Your task to perform on an android device: Go to battery settings Image 0: 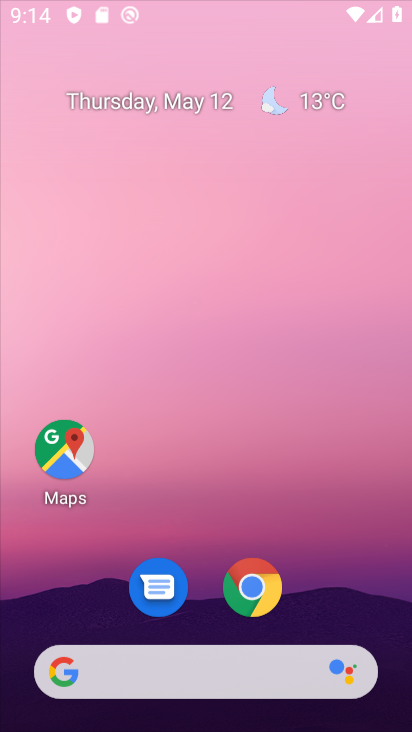
Step 0: drag from (357, 586) to (364, 14)
Your task to perform on an android device: Go to battery settings Image 1: 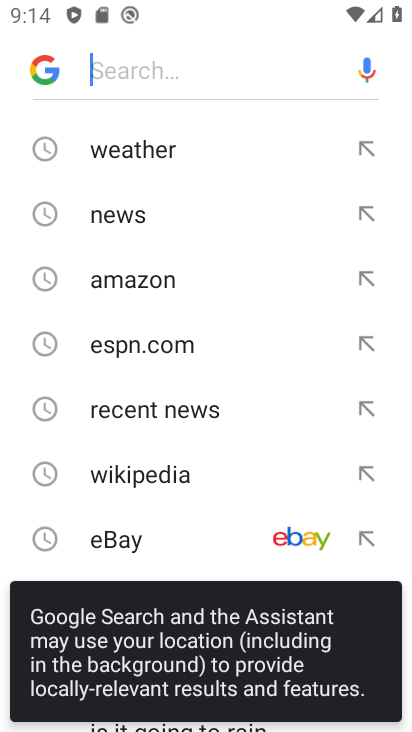
Step 1: press back button
Your task to perform on an android device: Go to battery settings Image 2: 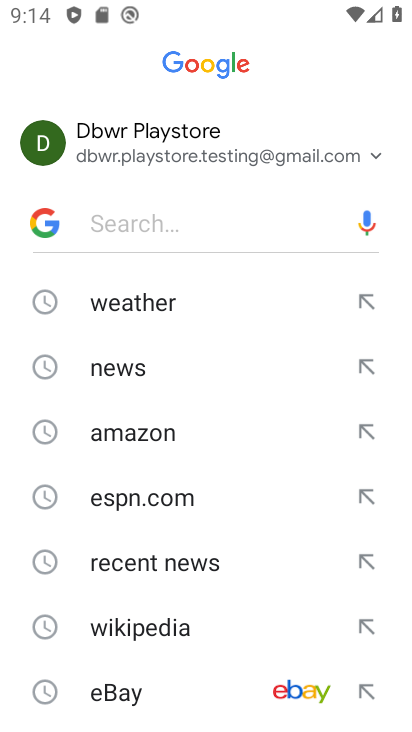
Step 2: press home button
Your task to perform on an android device: Go to battery settings Image 3: 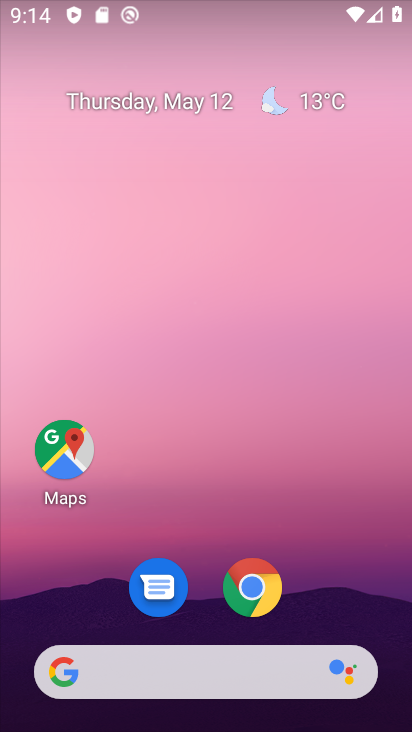
Step 3: drag from (327, 595) to (363, 30)
Your task to perform on an android device: Go to battery settings Image 4: 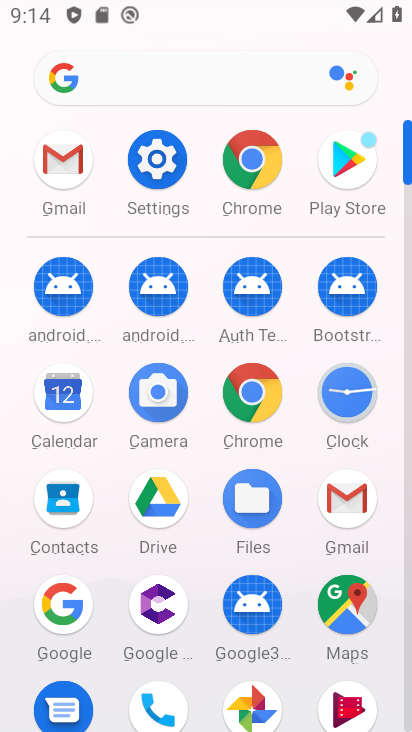
Step 4: click (170, 155)
Your task to perform on an android device: Go to battery settings Image 5: 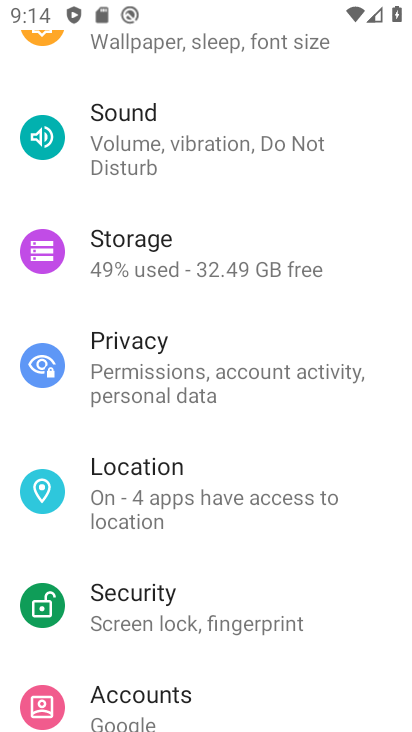
Step 5: drag from (255, 273) to (291, 670)
Your task to perform on an android device: Go to battery settings Image 6: 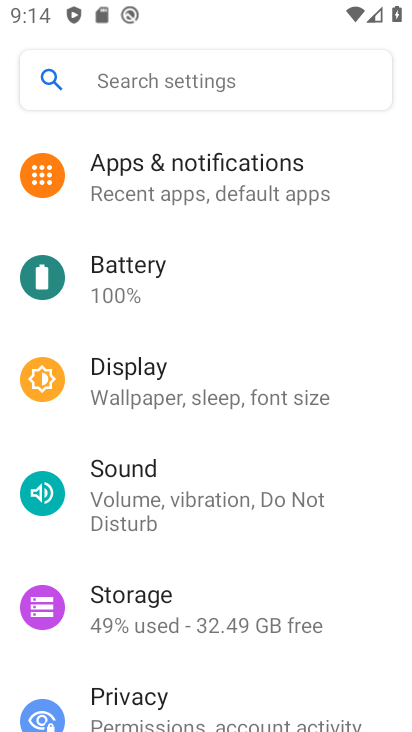
Step 6: drag from (285, 264) to (264, 636)
Your task to perform on an android device: Go to battery settings Image 7: 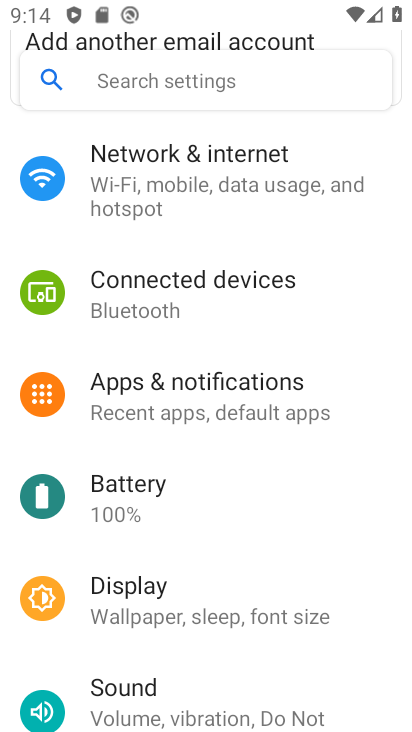
Step 7: click (137, 131)
Your task to perform on an android device: Go to battery settings Image 8: 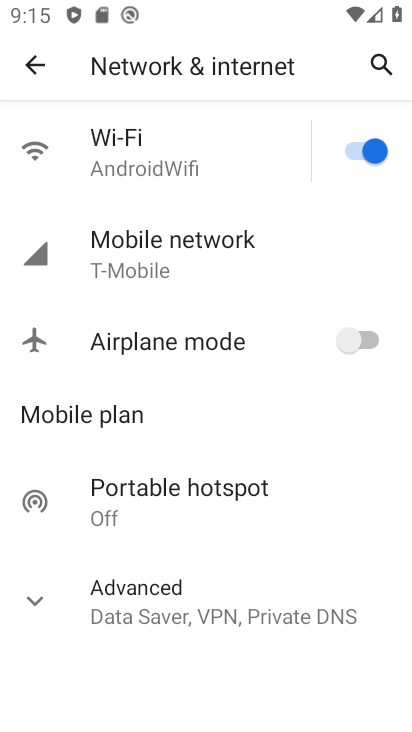
Step 8: press home button
Your task to perform on an android device: Go to battery settings Image 9: 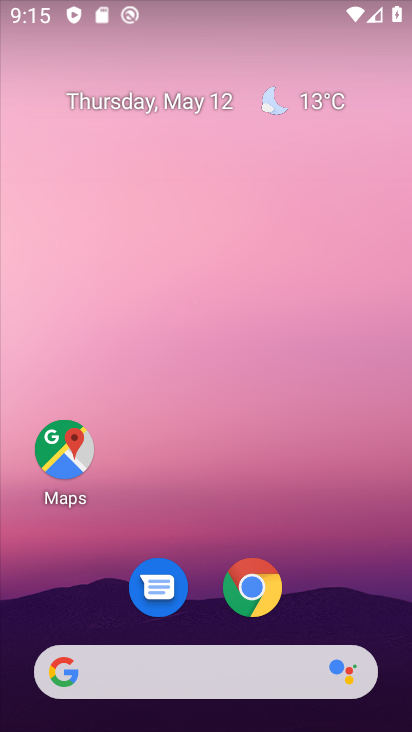
Step 9: drag from (332, 551) to (282, 93)
Your task to perform on an android device: Go to battery settings Image 10: 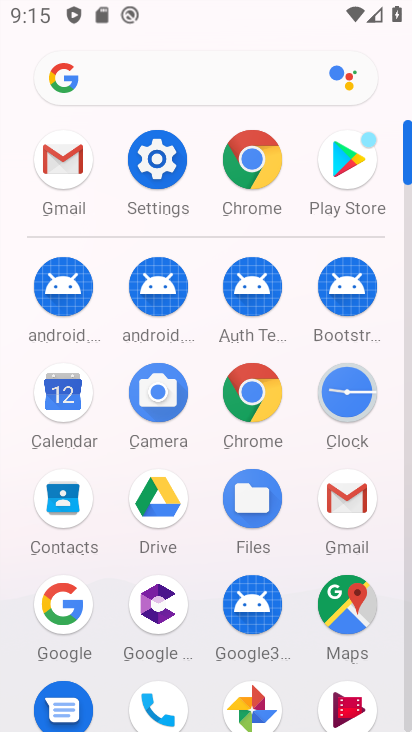
Step 10: click (130, 151)
Your task to perform on an android device: Go to battery settings Image 11: 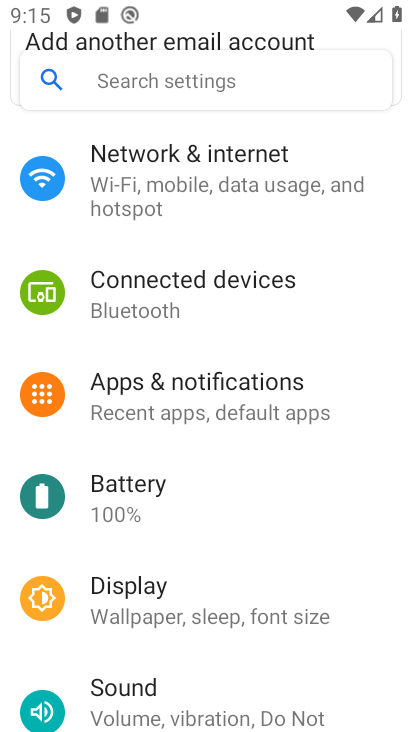
Step 11: click (159, 499)
Your task to perform on an android device: Go to battery settings Image 12: 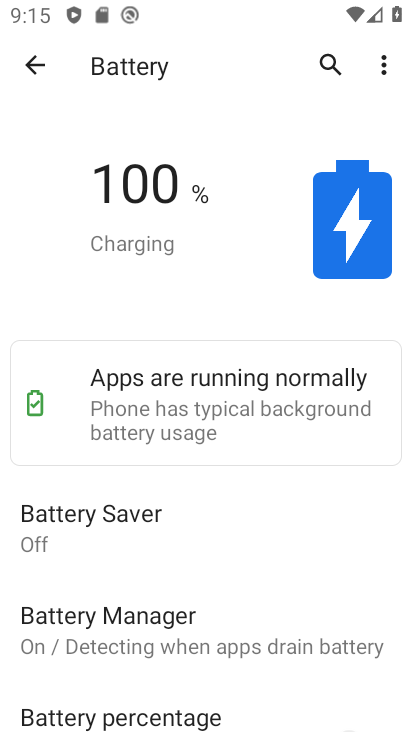
Step 12: task complete